Your task to perform on an android device: check data usage Image 0: 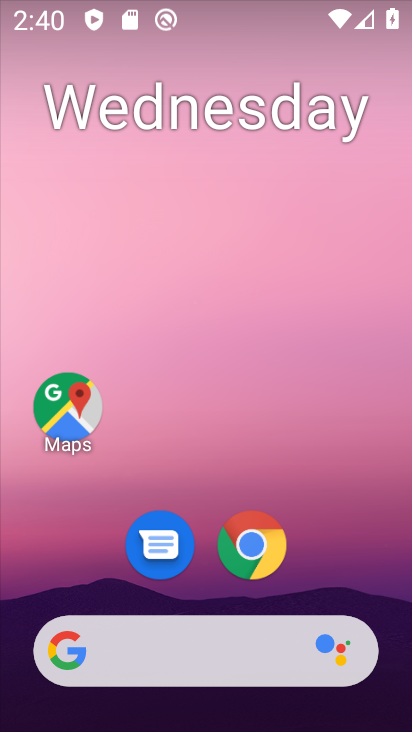
Step 0: drag from (243, 697) to (203, 212)
Your task to perform on an android device: check data usage Image 1: 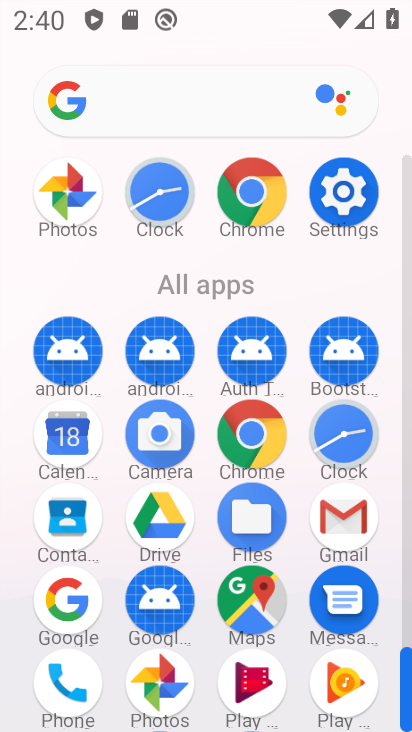
Step 1: click (348, 205)
Your task to perform on an android device: check data usage Image 2: 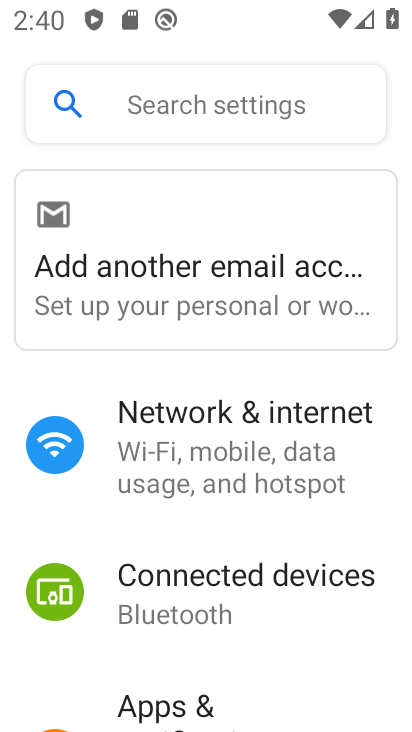
Step 2: click (186, 94)
Your task to perform on an android device: check data usage Image 3: 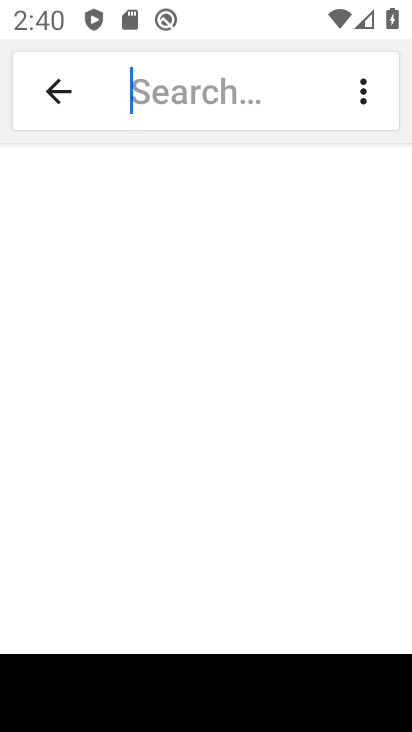
Step 3: drag from (336, 674) to (348, 565)
Your task to perform on an android device: check data usage Image 4: 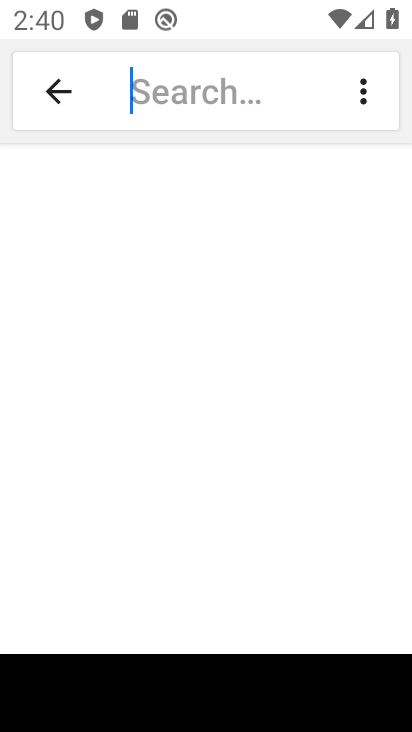
Step 4: drag from (396, 684) to (367, 584)
Your task to perform on an android device: check data usage Image 5: 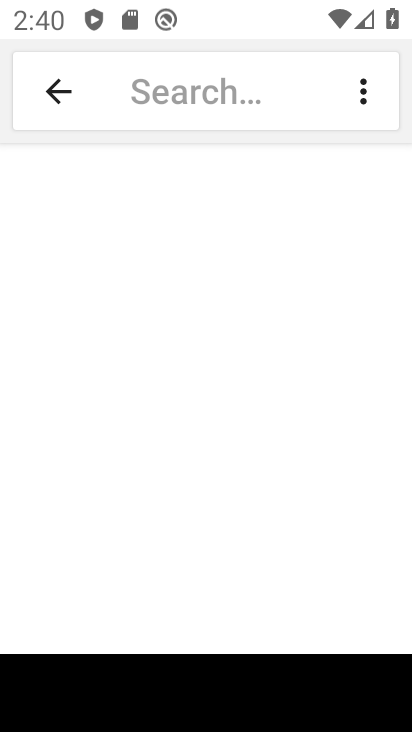
Step 5: click (388, 711)
Your task to perform on an android device: check data usage Image 6: 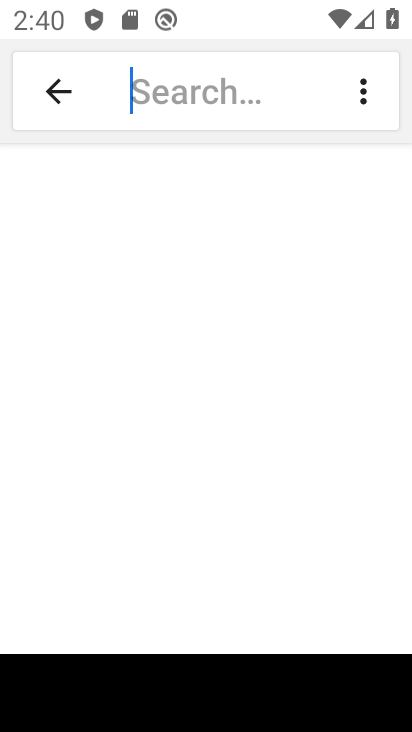
Step 6: click (167, 98)
Your task to perform on an android device: check data usage Image 7: 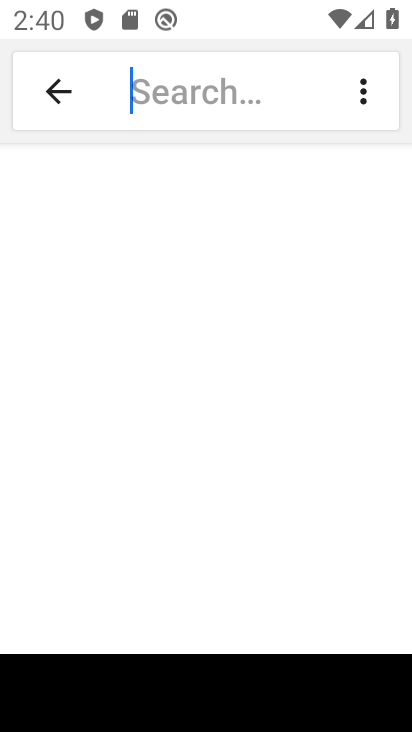
Step 7: drag from (383, 705) to (365, 570)
Your task to perform on an android device: check data usage Image 8: 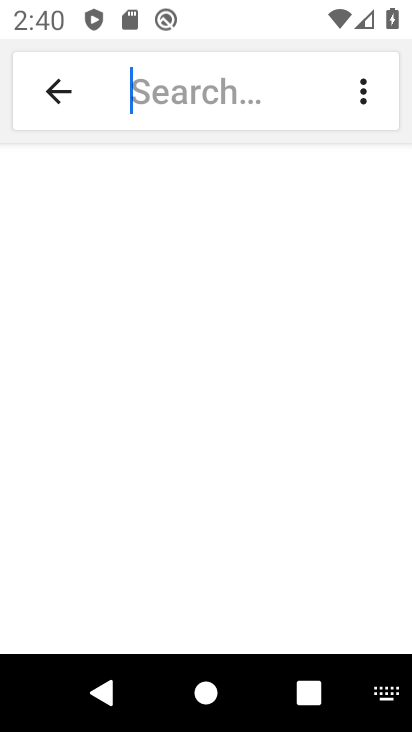
Step 8: click (369, 701)
Your task to perform on an android device: check data usage Image 9: 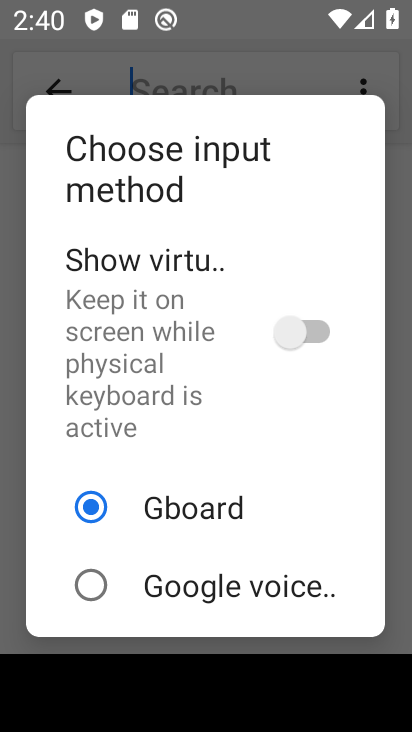
Step 9: click (306, 329)
Your task to perform on an android device: check data usage Image 10: 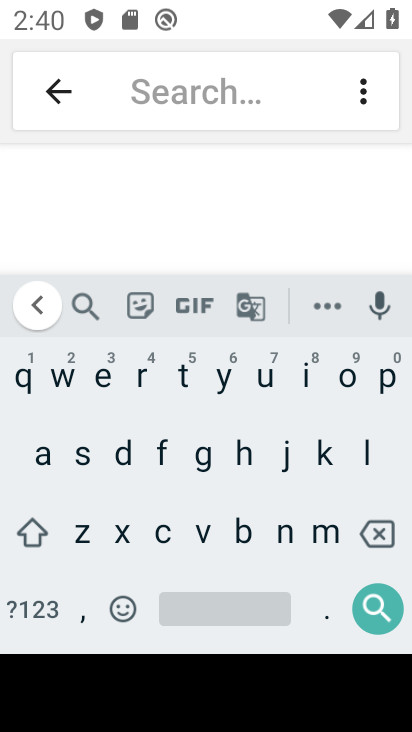
Step 10: click (124, 447)
Your task to perform on an android device: check data usage Image 11: 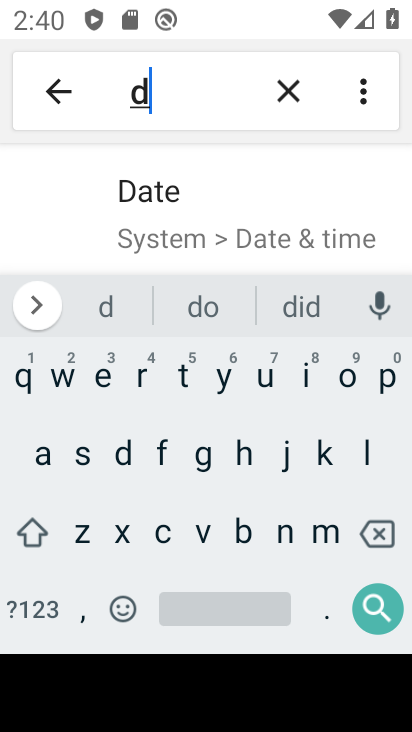
Step 11: click (33, 455)
Your task to perform on an android device: check data usage Image 12: 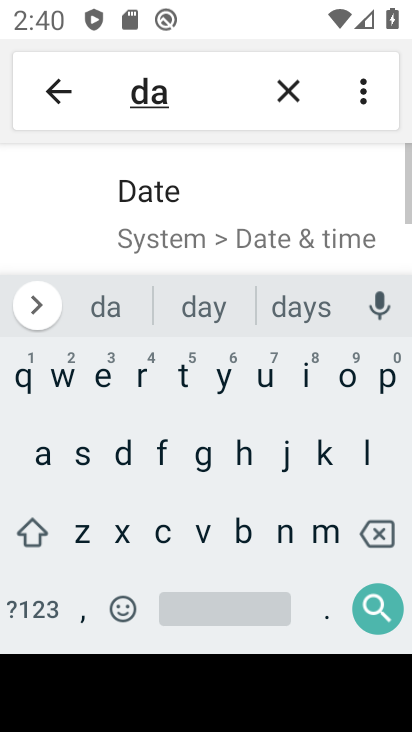
Step 12: click (187, 386)
Your task to perform on an android device: check data usage Image 13: 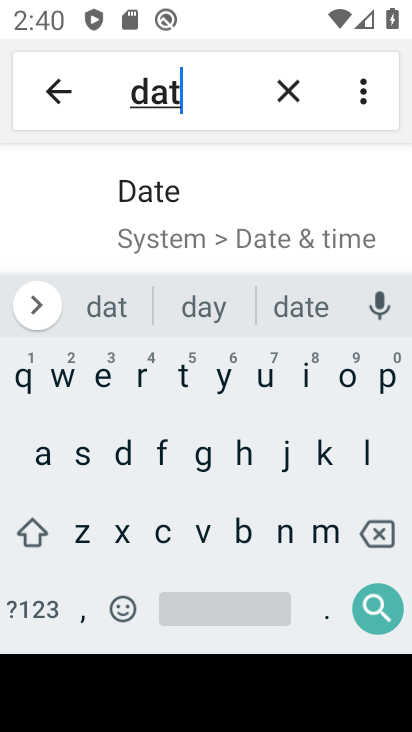
Step 13: click (28, 464)
Your task to perform on an android device: check data usage Image 14: 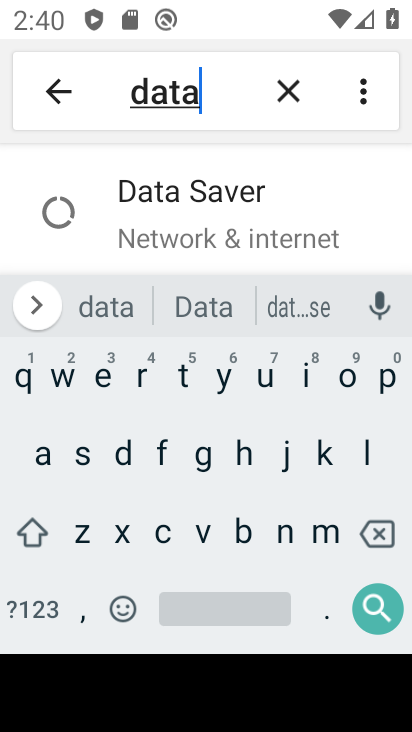
Step 14: click (182, 602)
Your task to perform on an android device: check data usage Image 15: 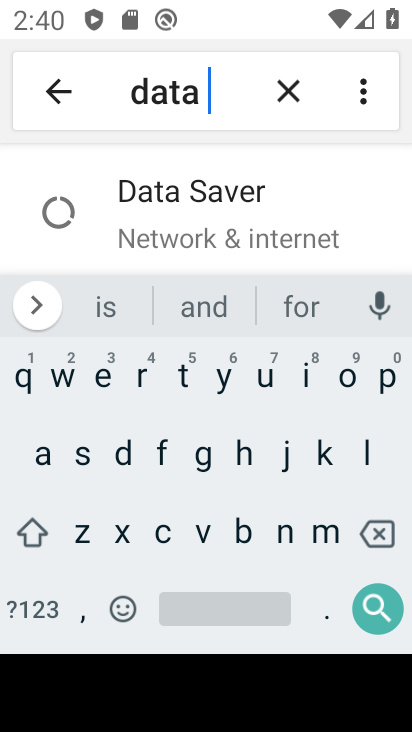
Step 15: click (268, 383)
Your task to perform on an android device: check data usage Image 16: 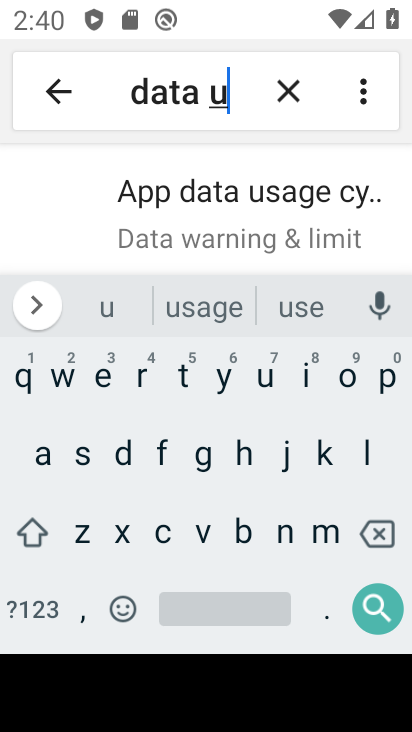
Step 16: drag from (196, 200) to (198, 95)
Your task to perform on an android device: check data usage Image 17: 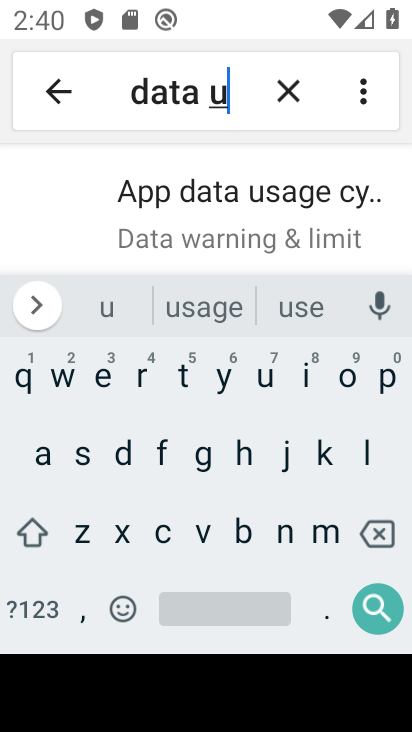
Step 17: drag from (155, 222) to (197, 100)
Your task to perform on an android device: check data usage Image 18: 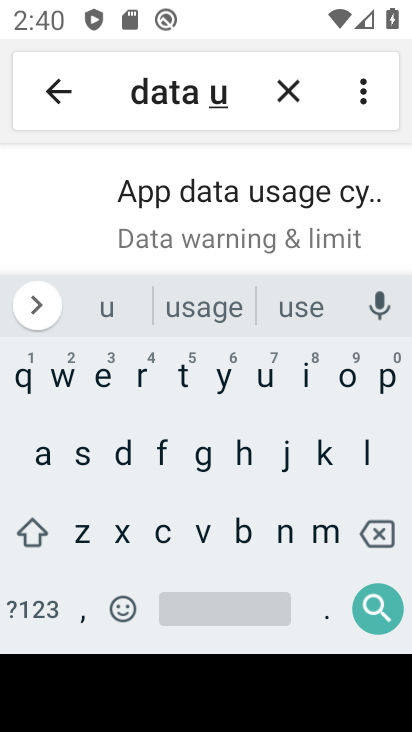
Step 18: press back button
Your task to perform on an android device: check data usage Image 19: 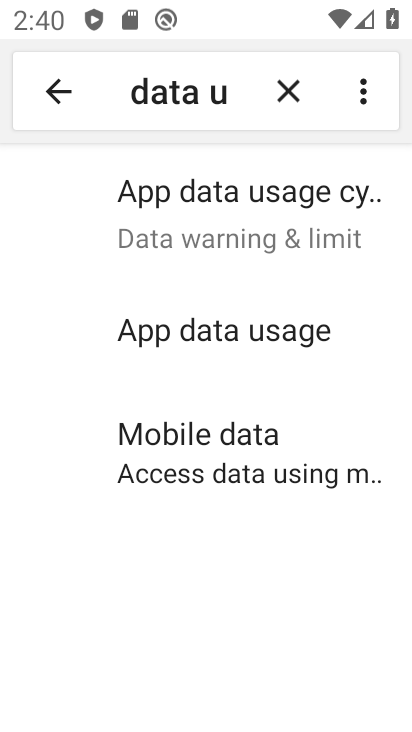
Step 19: click (239, 333)
Your task to perform on an android device: check data usage Image 20: 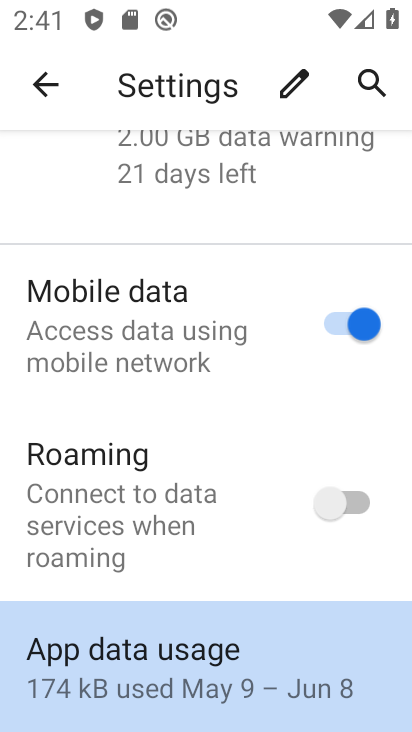
Step 20: click (152, 667)
Your task to perform on an android device: check data usage Image 21: 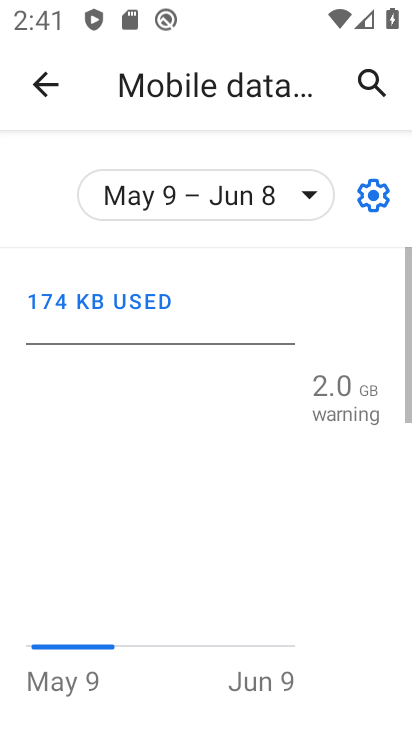
Step 21: task complete